Your task to perform on an android device: Show me popular games on the Play Store Image 0: 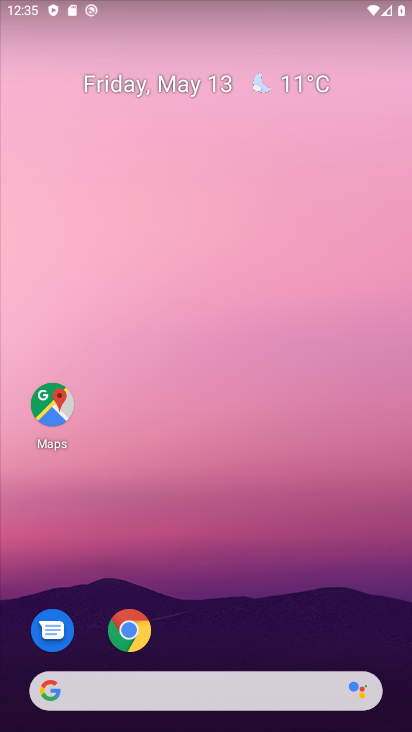
Step 0: drag from (249, 655) to (192, 117)
Your task to perform on an android device: Show me popular games on the Play Store Image 1: 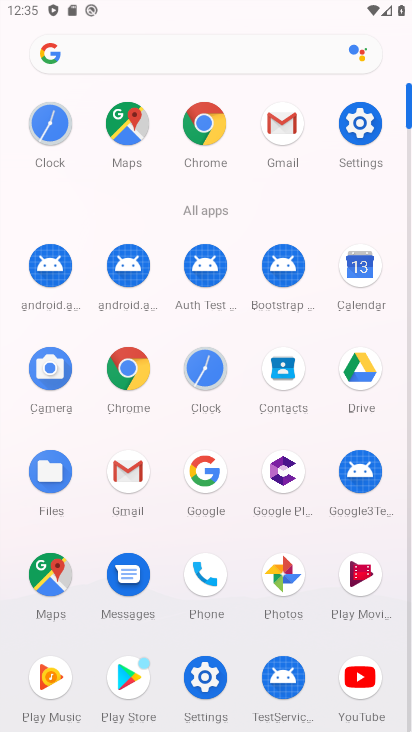
Step 1: drag from (240, 211) to (246, 34)
Your task to perform on an android device: Show me popular games on the Play Store Image 2: 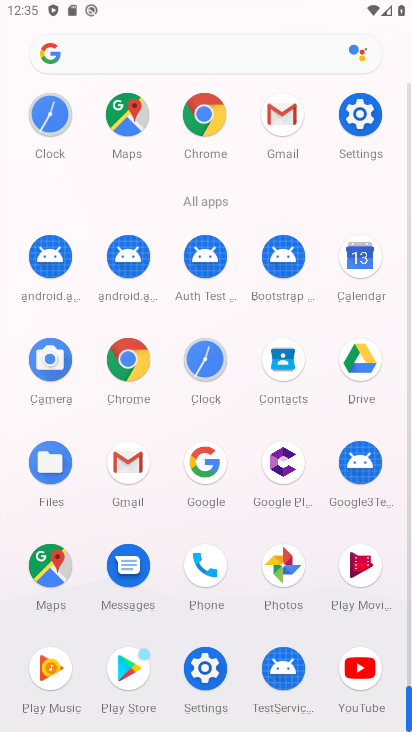
Step 2: click (144, 665)
Your task to perform on an android device: Show me popular games on the Play Store Image 3: 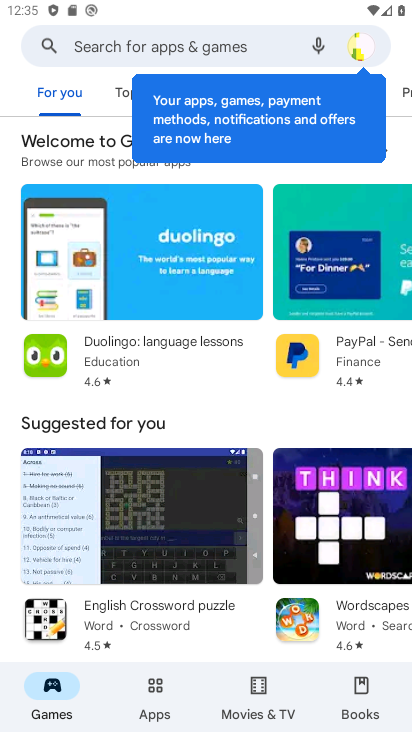
Step 3: drag from (161, 389) to (166, 253)
Your task to perform on an android device: Show me popular games on the Play Store Image 4: 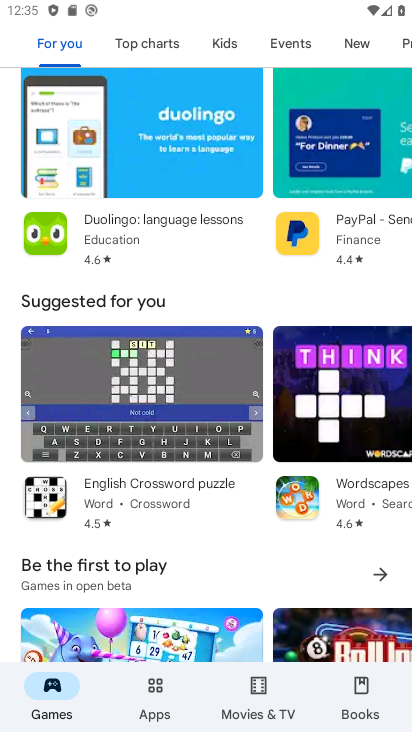
Step 4: drag from (119, 574) to (118, 277)
Your task to perform on an android device: Show me popular games on the Play Store Image 5: 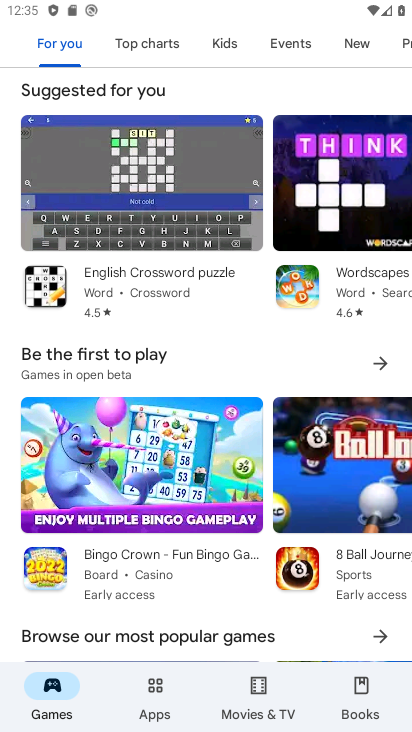
Step 5: drag from (140, 507) to (140, 201)
Your task to perform on an android device: Show me popular games on the Play Store Image 6: 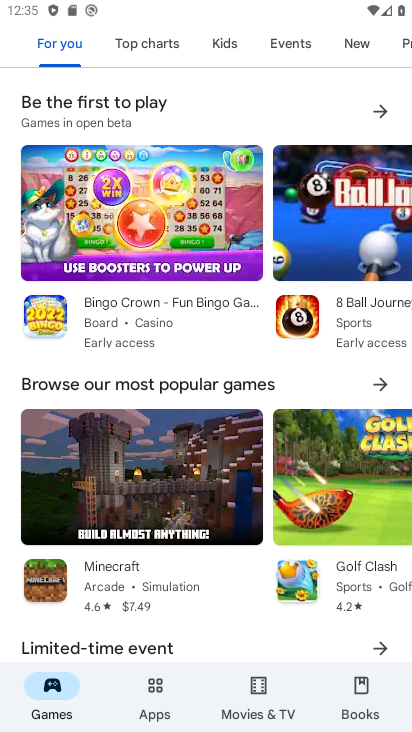
Step 6: click (376, 390)
Your task to perform on an android device: Show me popular games on the Play Store Image 7: 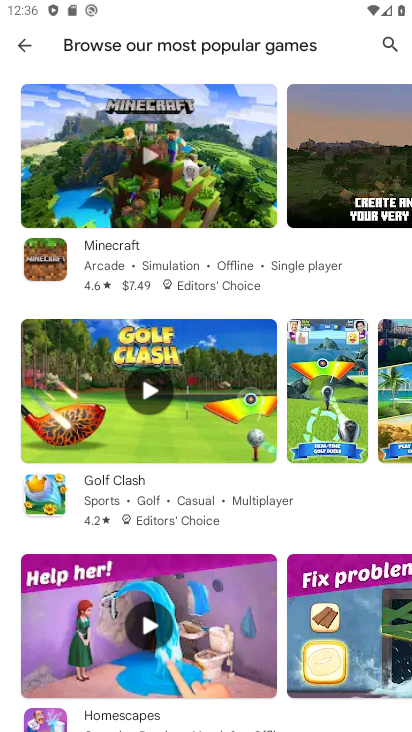
Step 7: task complete